Your task to perform on an android device: What's the weather? Image 0: 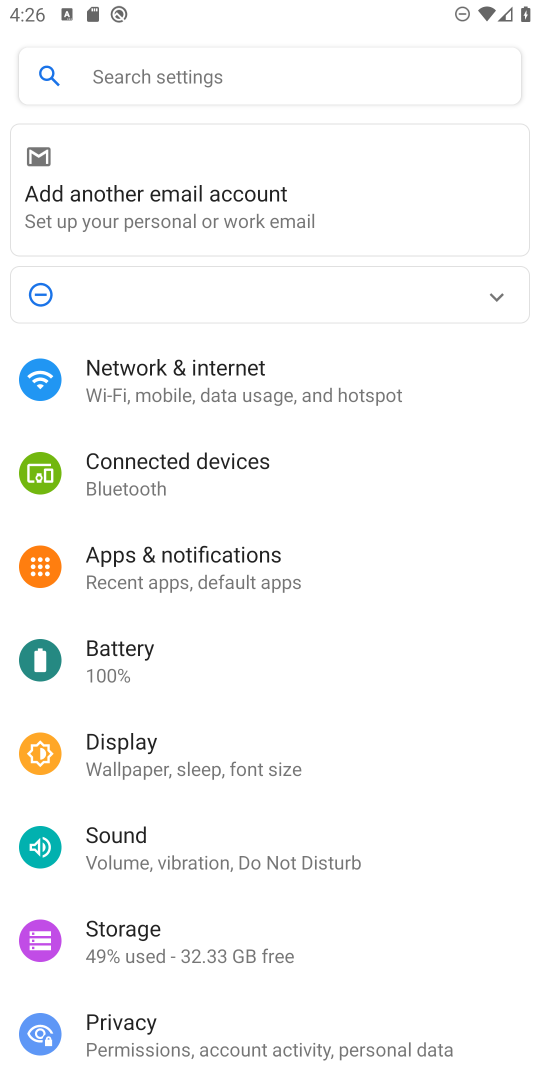
Step 0: press home button
Your task to perform on an android device: What's the weather? Image 1: 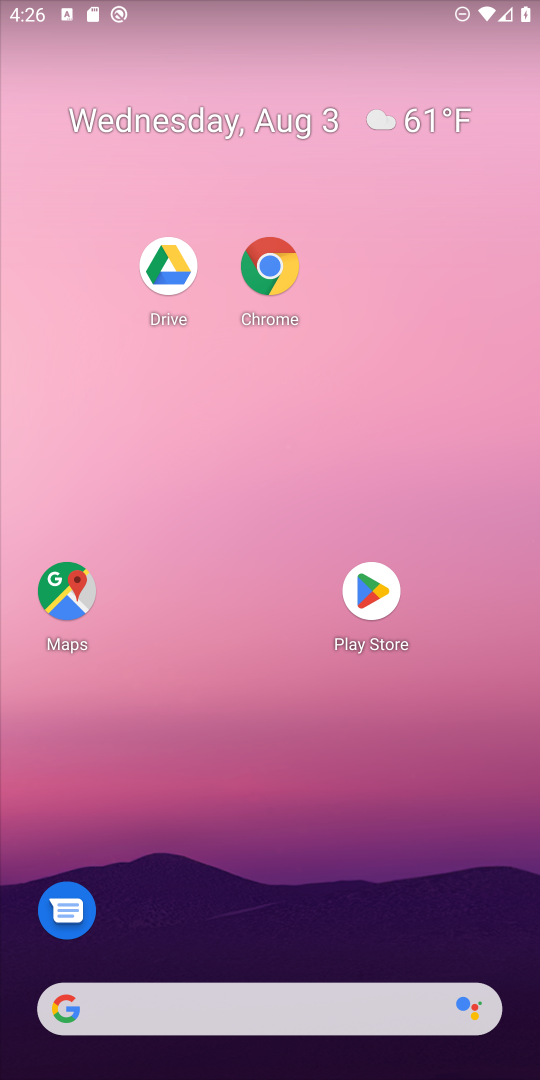
Step 1: drag from (48, 391) to (516, 392)
Your task to perform on an android device: What's the weather? Image 2: 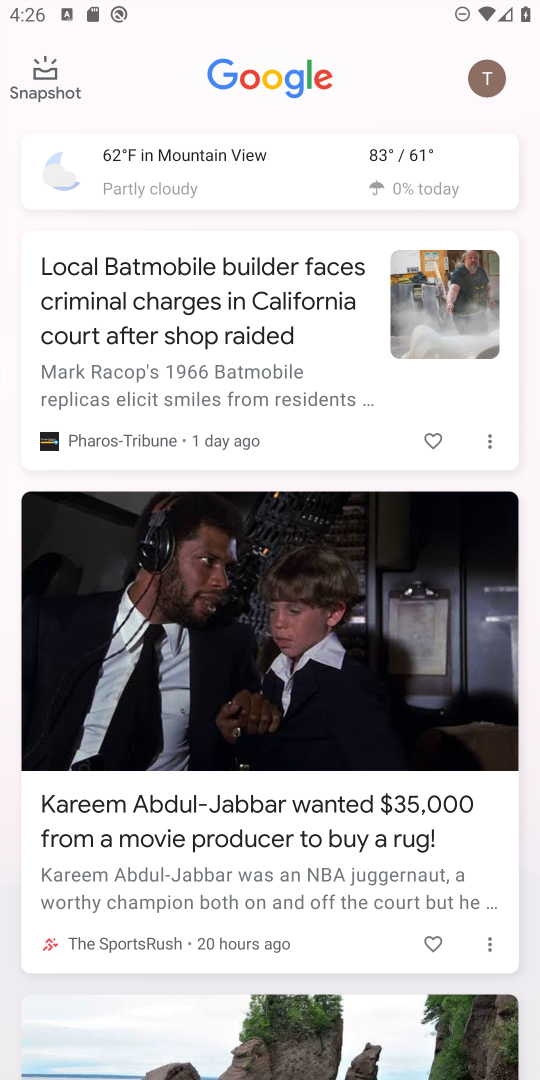
Step 2: click (265, 176)
Your task to perform on an android device: What's the weather? Image 3: 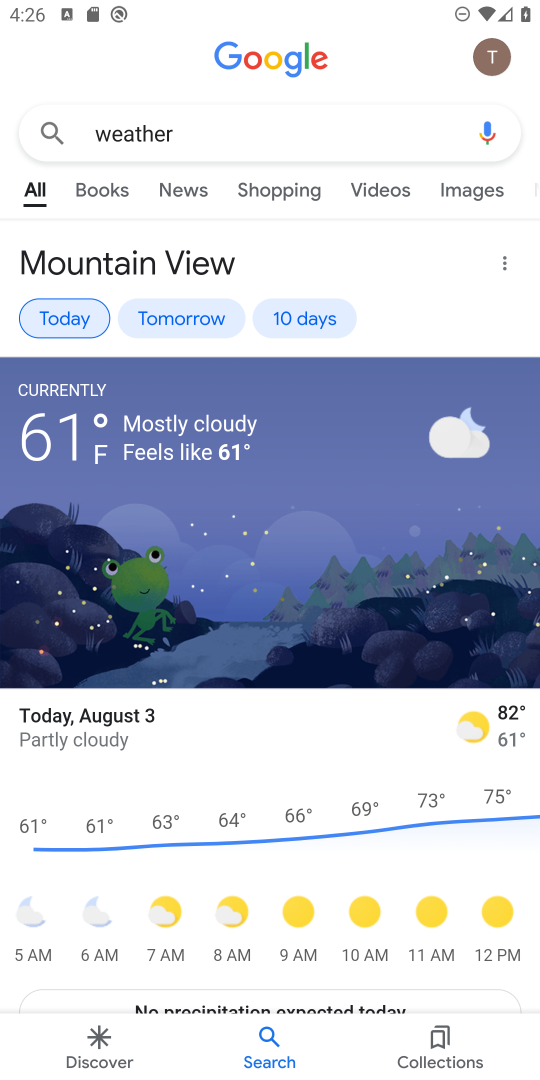
Step 3: task complete